Your task to perform on an android device: Open Maps and search for coffee Image 0: 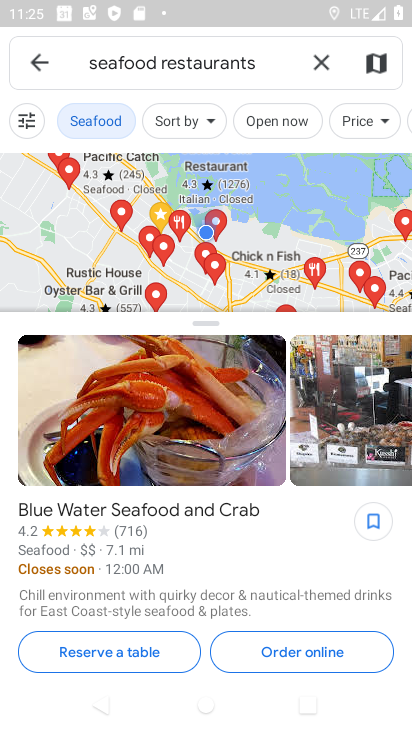
Step 0: click (272, 65)
Your task to perform on an android device: Open Maps and search for coffee Image 1: 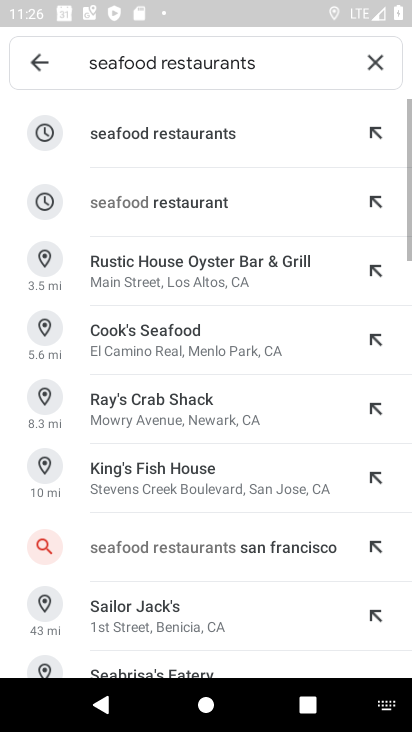
Step 1: click (326, 65)
Your task to perform on an android device: Open Maps and search for coffee Image 2: 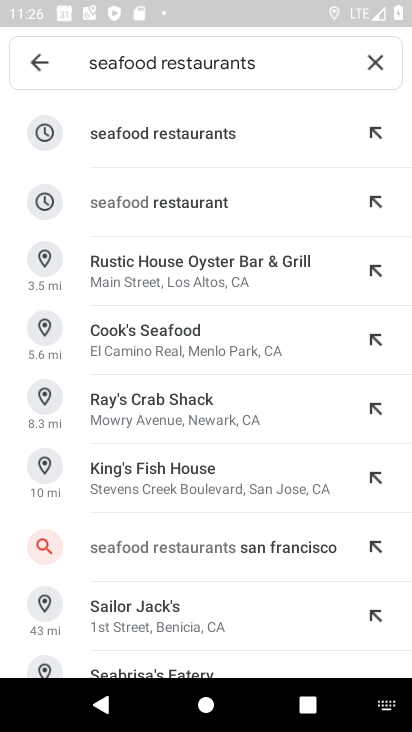
Step 2: click (380, 69)
Your task to perform on an android device: Open Maps and search for coffee Image 3: 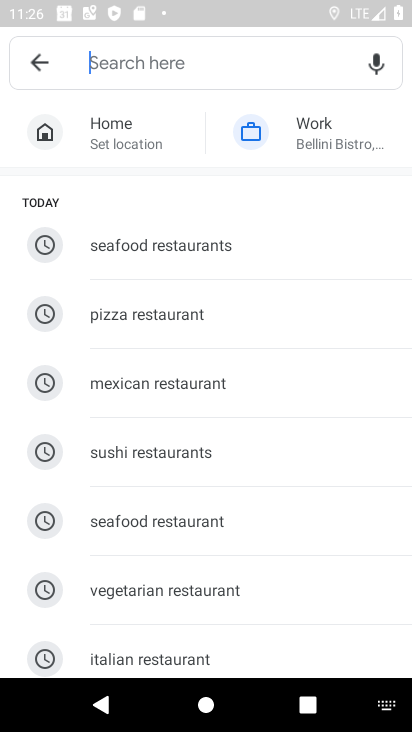
Step 3: type ""
Your task to perform on an android device: Open Maps and search for coffee Image 4: 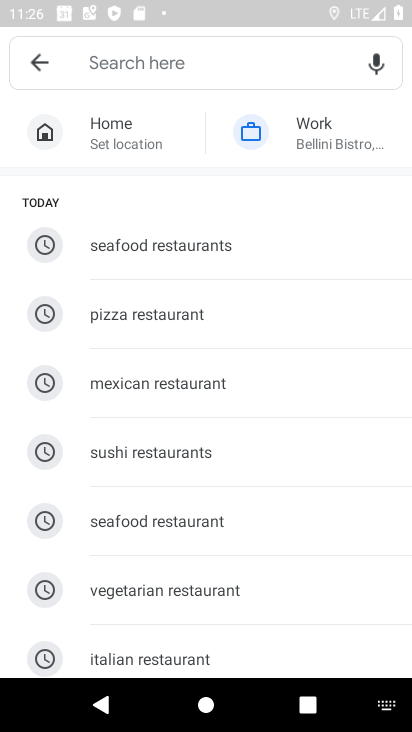
Step 4: type "coffee"
Your task to perform on an android device: Open Maps and search for coffee Image 5: 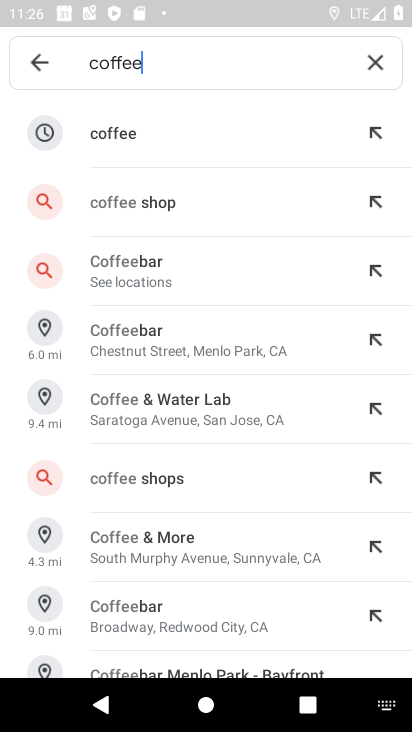
Step 5: click (109, 138)
Your task to perform on an android device: Open Maps and search for coffee Image 6: 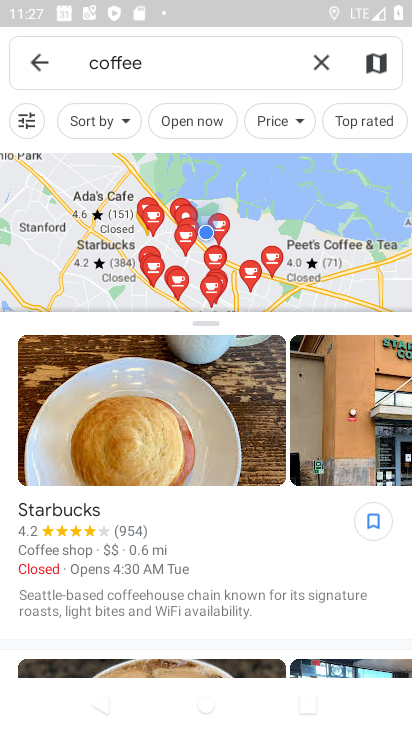
Step 6: task complete